Your task to perform on an android device: What's on my calendar tomorrow? Image 0: 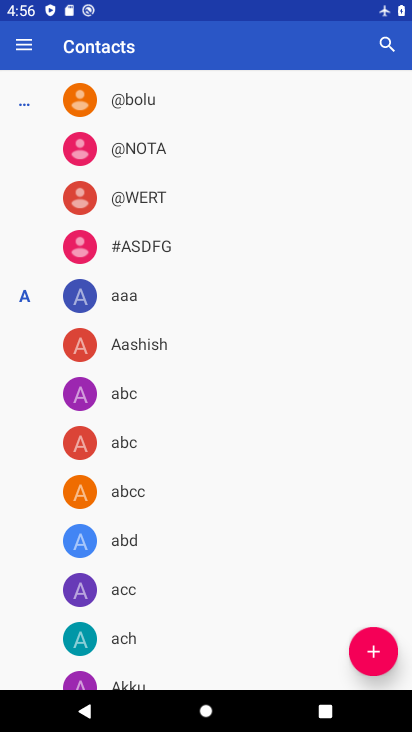
Step 0: press home button
Your task to perform on an android device: What's on my calendar tomorrow? Image 1: 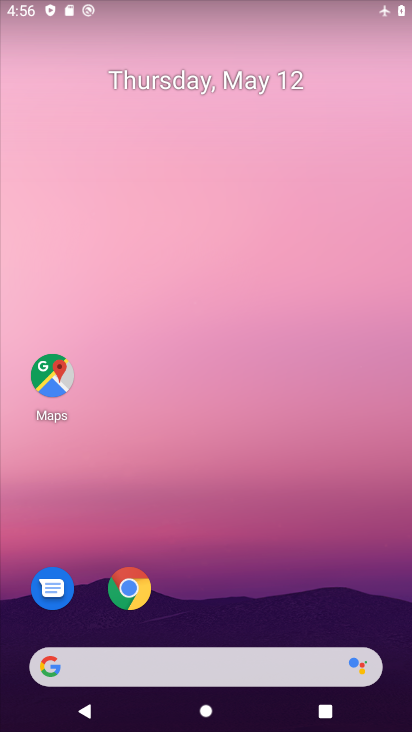
Step 1: drag from (189, 534) to (271, 1)
Your task to perform on an android device: What's on my calendar tomorrow? Image 2: 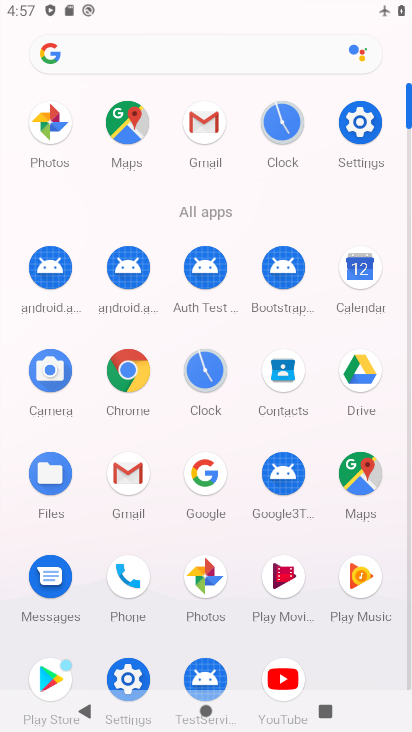
Step 2: click (351, 284)
Your task to perform on an android device: What's on my calendar tomorrow? Image 3: 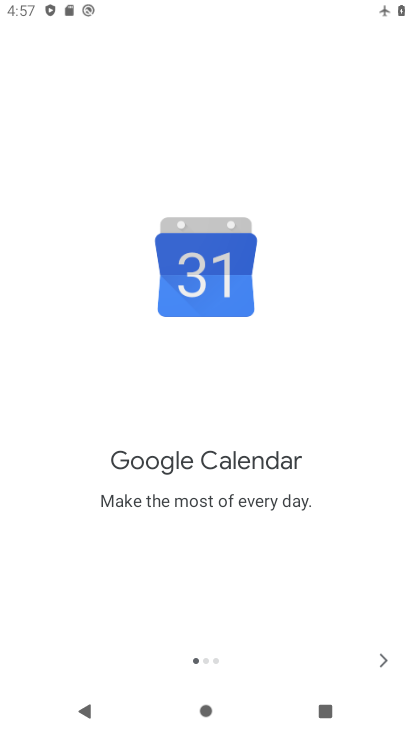
Step 3: click (389, 657)
Your task to perform on an android device: What's on my calendar tomorrow? Image 4: 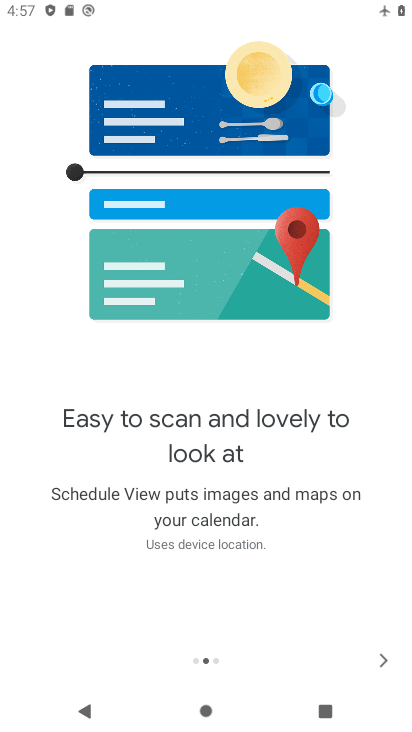
Step 4: click (389, 657)
Your task to perform on an android device: What's on my calendar tomorrow? Image 5: 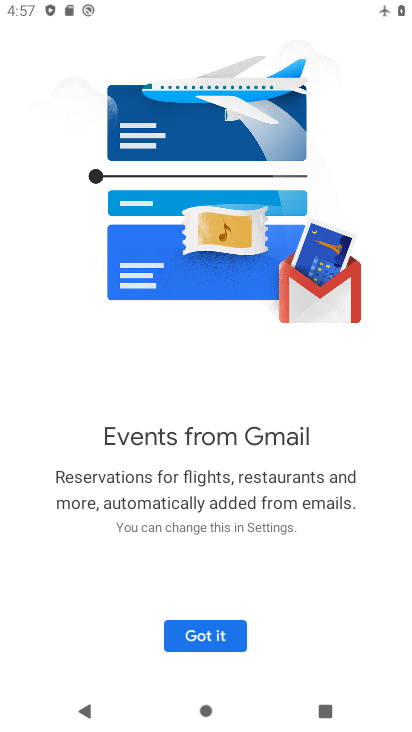
Step 5: click (188, 624)
Your task to perform on an android device: What's on my calendar tomorrow? Image 6: 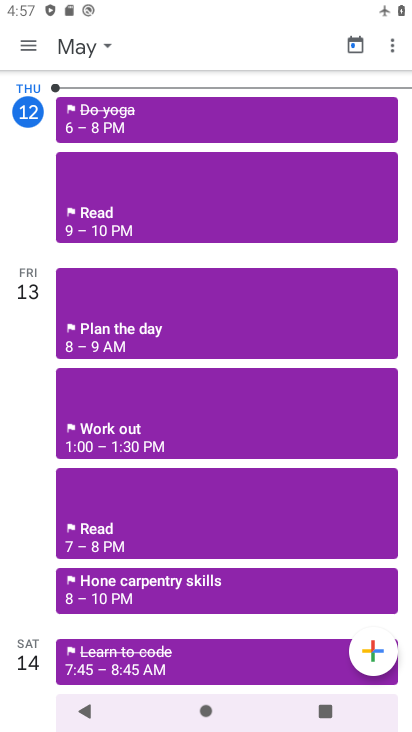
Step 6: click (36, 42)
Your task to perform on an android device: What's on my calendar tomorrow? Image 7: 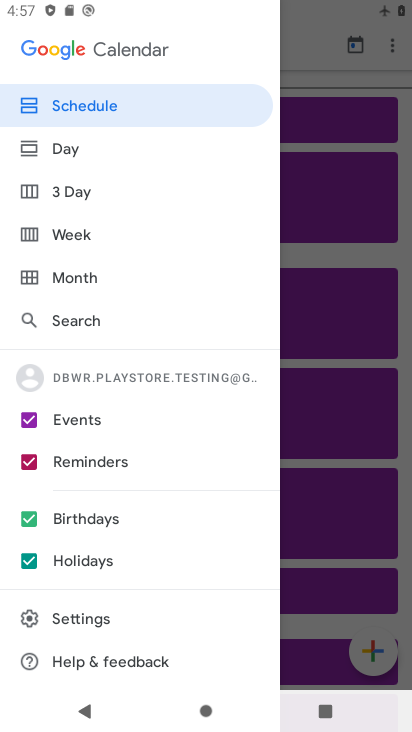
Step 7: click (83, 189)
Your task to perform on an android device: What's on my calendar tomorrow? Image 8: 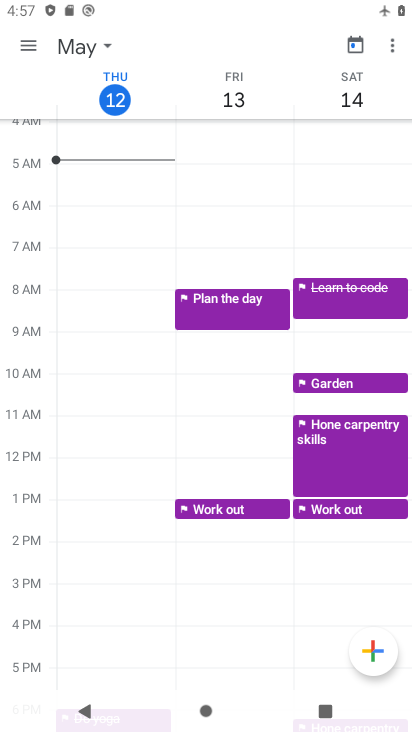
Step 8: task complete